Your task to perform on an android device: Search for Mexican restaurants on Maps Image 0: 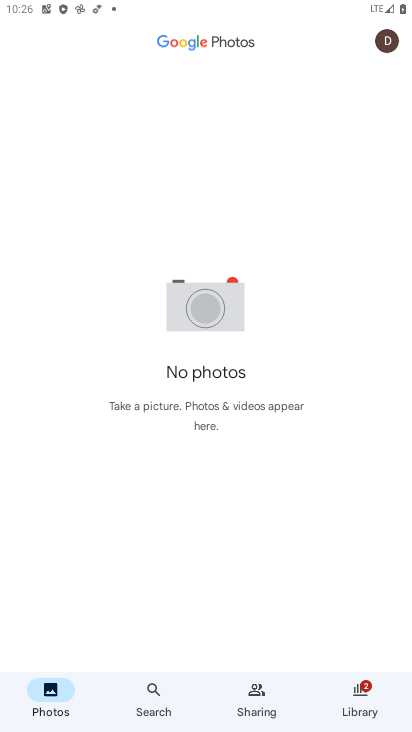
Step 0: press home button
Your task to perform on an android device: Search for Mexican restaurants on Maps Image 1: 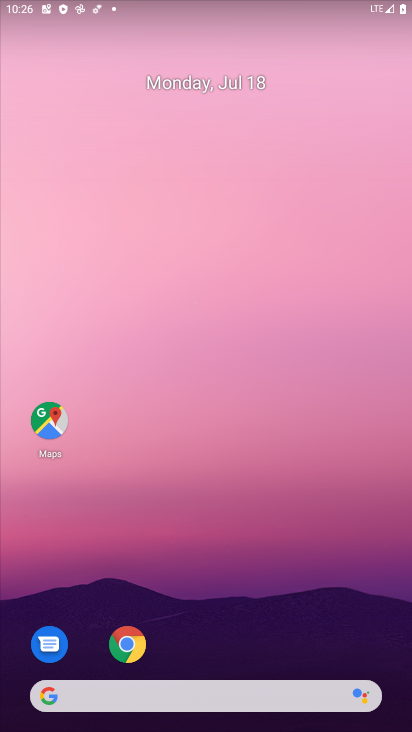
Step 1: drag from (353, 598) to (381, 134)
Your task to perform on an android device: Search for Mexican restaurants on Maps Image 2: 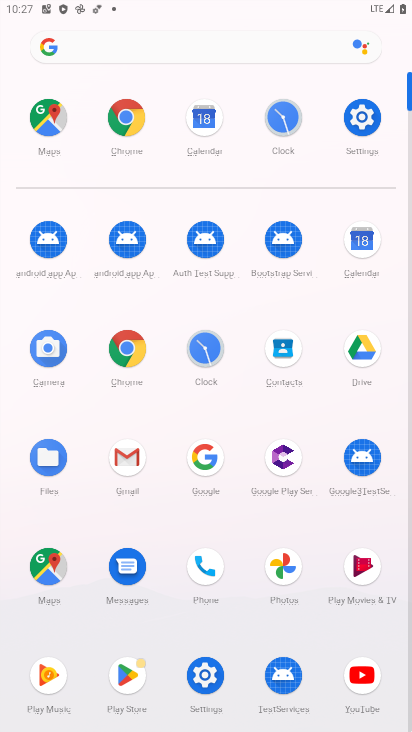
Step 2: click (48, 574)
Your task to perform on an android device: Search for Mexican restaurants on Maps Image 3: 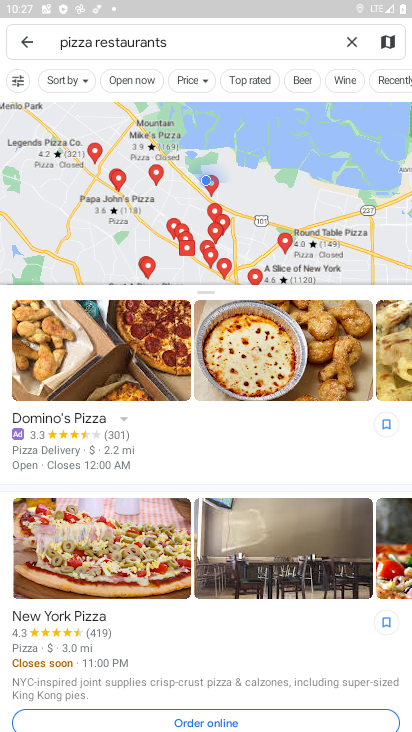
Step 3: press back button
Your task to perform on an android device: Search for Mexican restaurants on Maps Image 4: 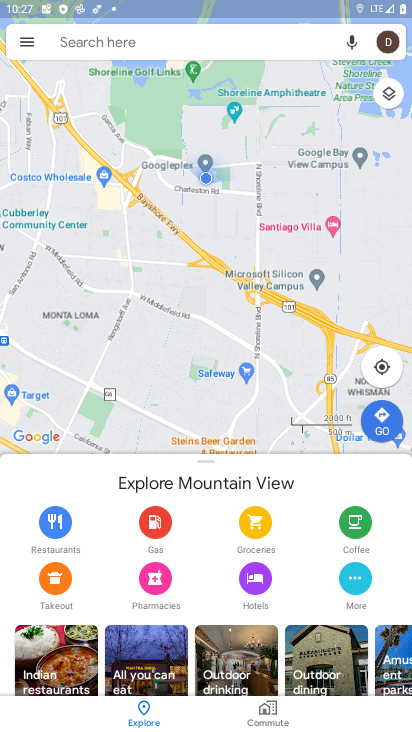
Step 4: click (229, 45)
Your task to perform on an android device: Search for Mexican restaurants on Maps Image 5: 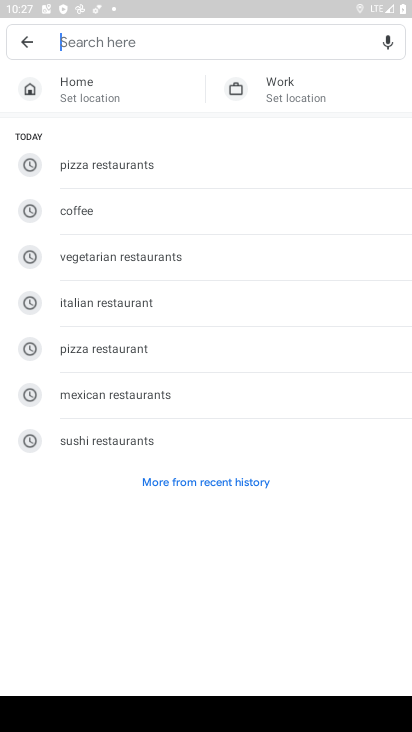
Step 5: type "mexican restaurants"
Your task to perform on an android device: Search for Mexican restaurants on Maps Image 6: 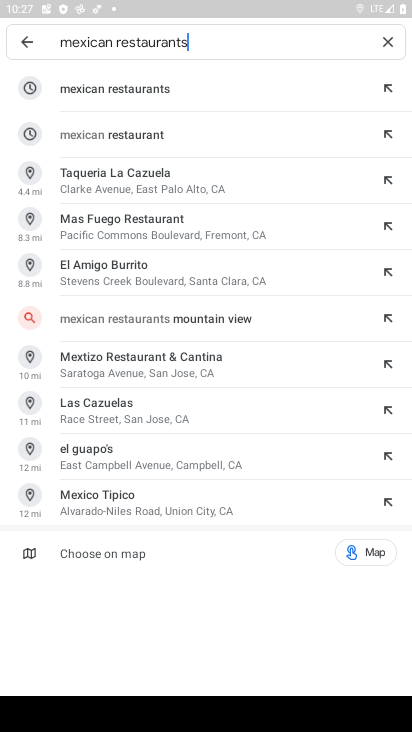
Step 6: click (221, 80)
Your task to perform on an android device: Search for Mexican restaurants on Maps Image 7: 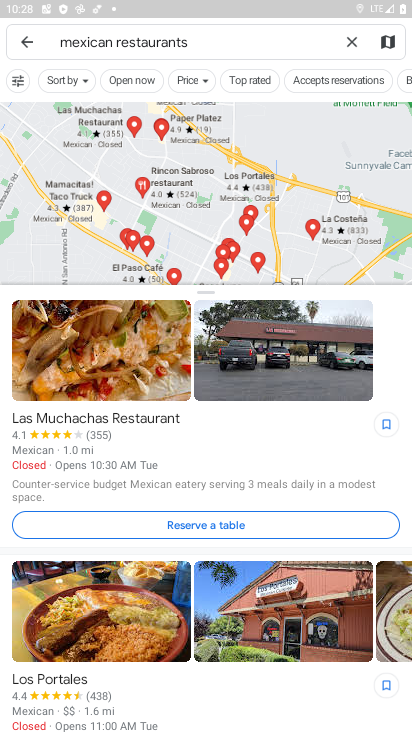
Step 7: task complete